Your task to perform on an android device: turn pop-ups on in chrome Image 0: 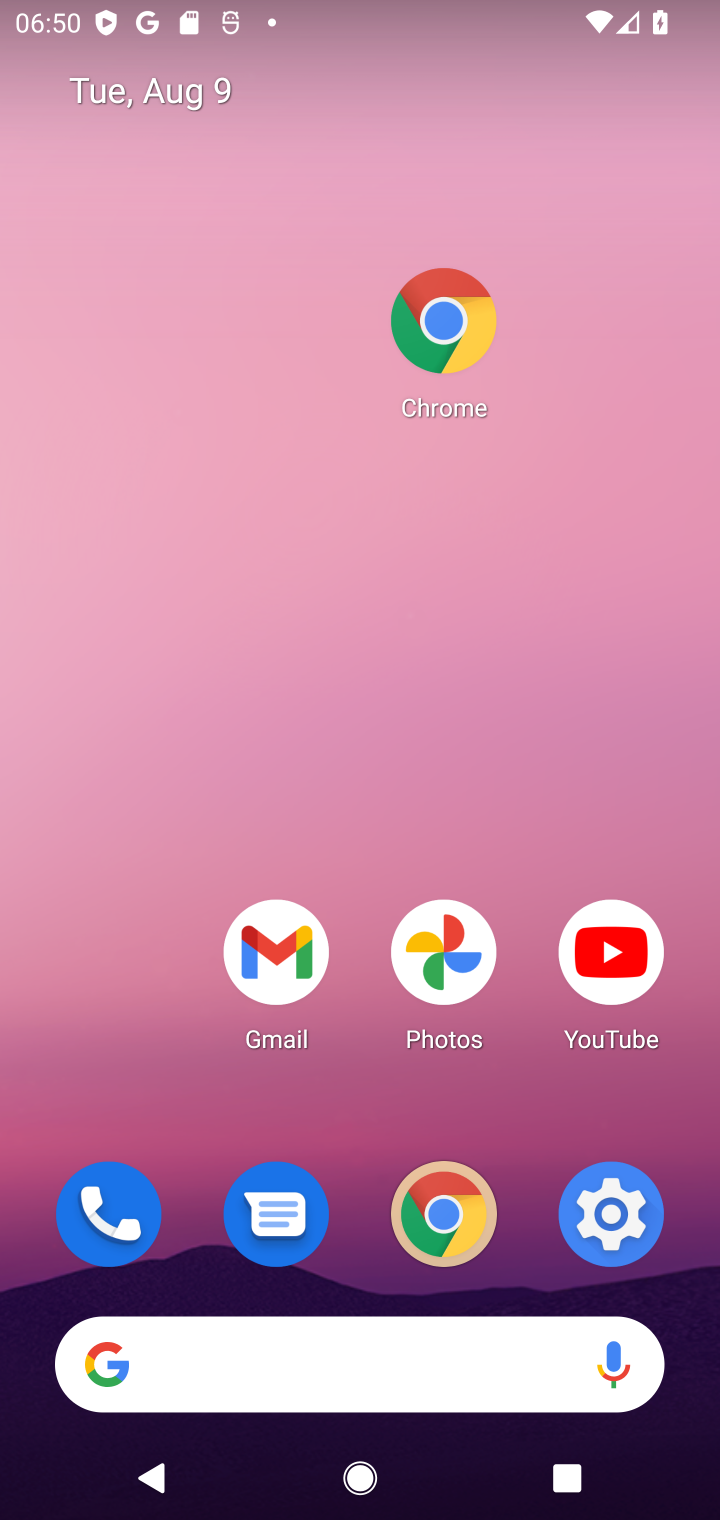
Step 0: press home button
Your task to perform on an android device: turn pop-ups on in chrome Image 1: 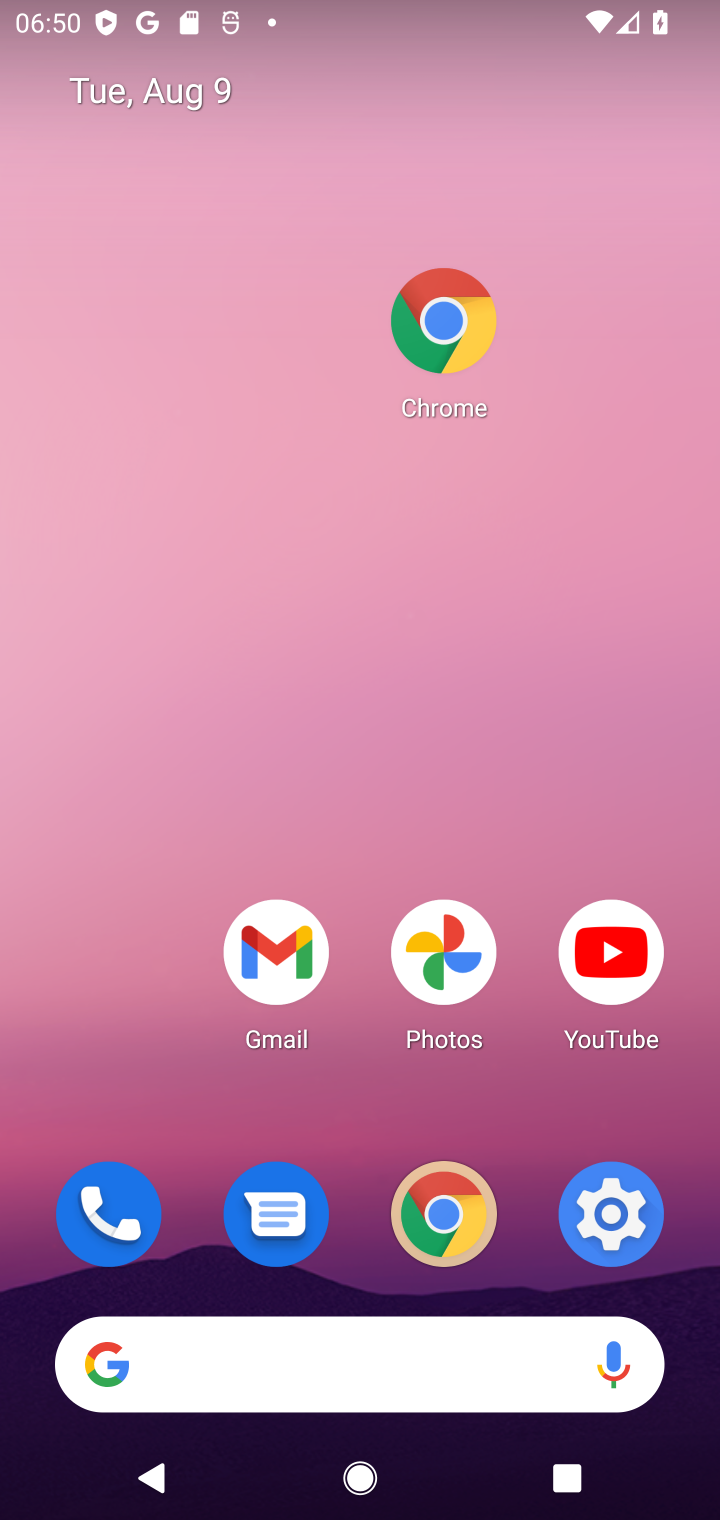
Step 1: click (443, 1233)
Your task to perform on an android device: turn pop-ups on in chrome Image 2: 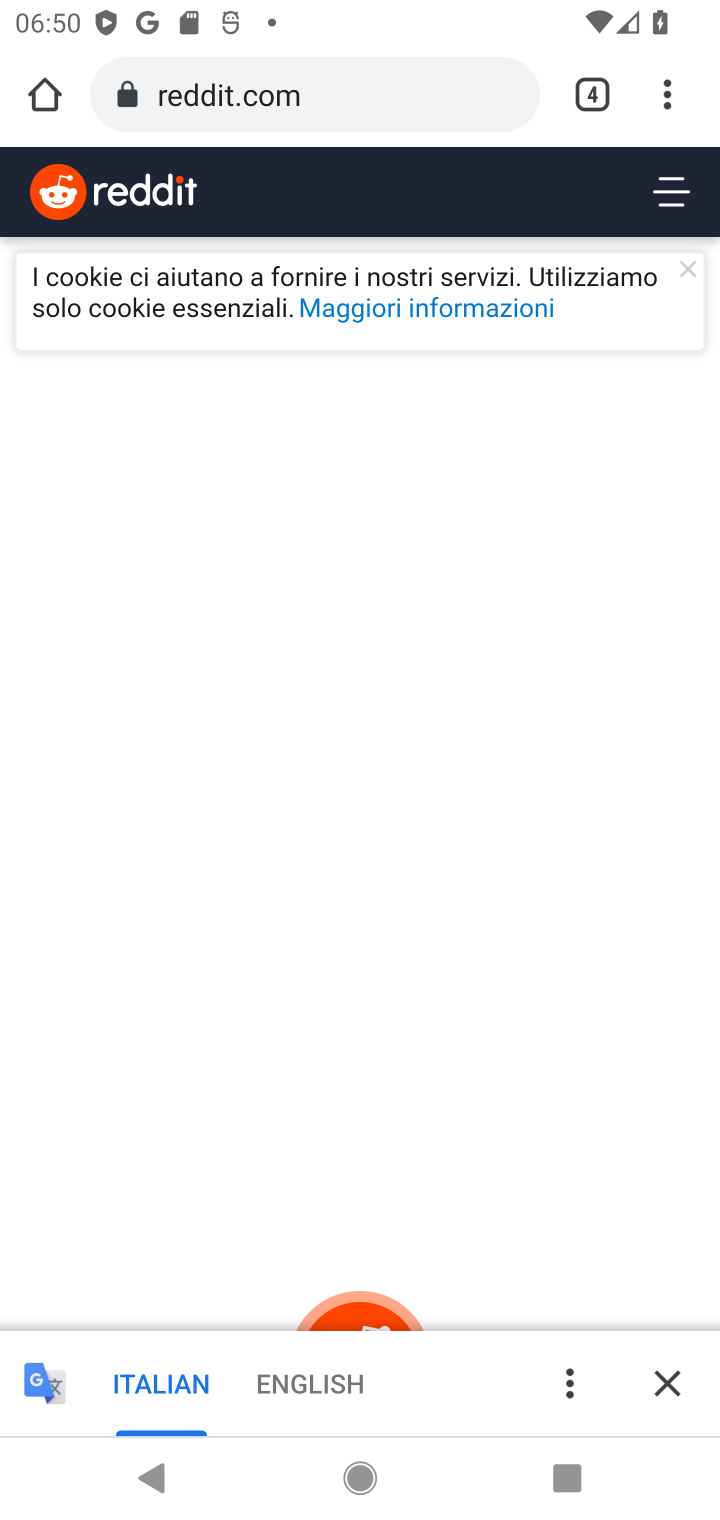
Step 2: click (659, 85)
Your task to perform on an android device: turn pop-ups on in chrome Image 3: 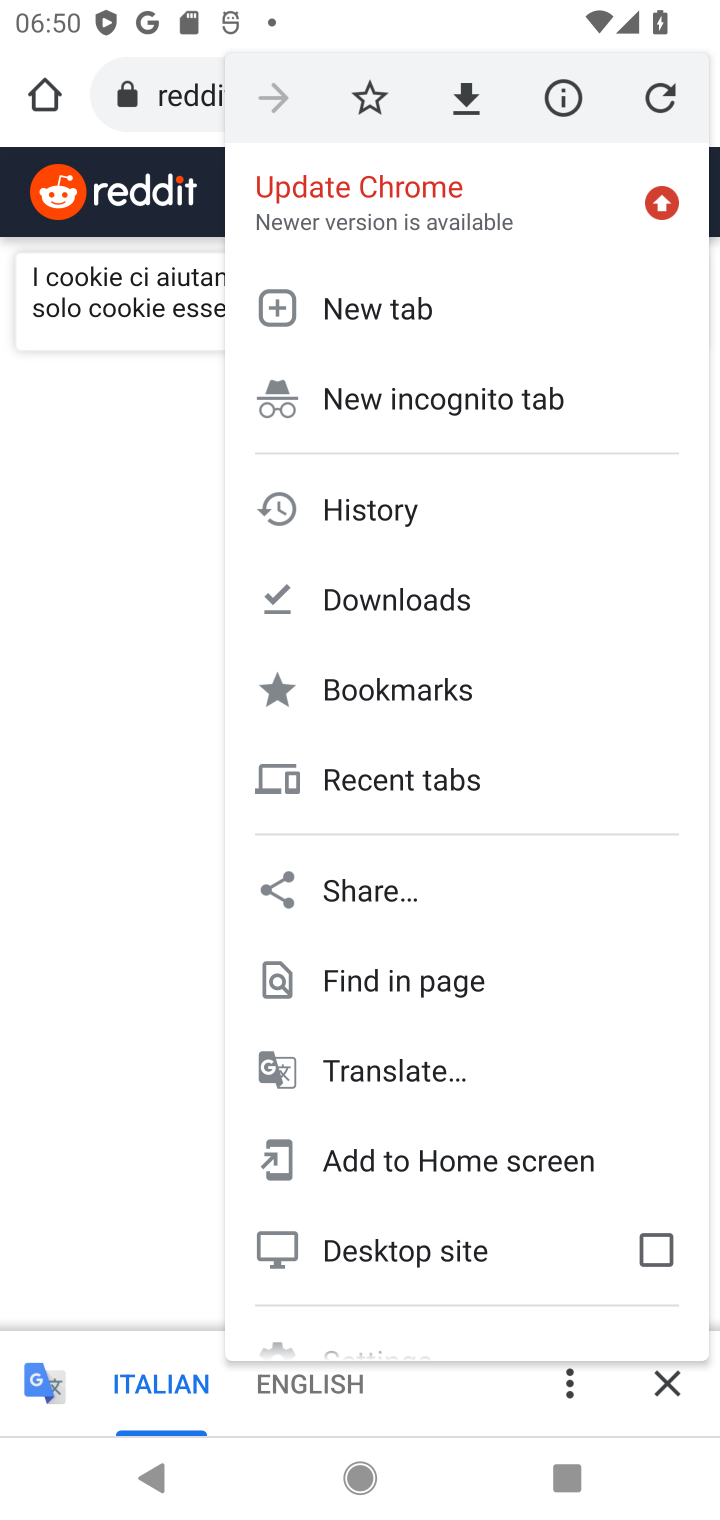
Step 3: drag from (358, 1161) to (492, 867)
Your task to perform on an android device: turn pop-ups on in chrome Image 4: 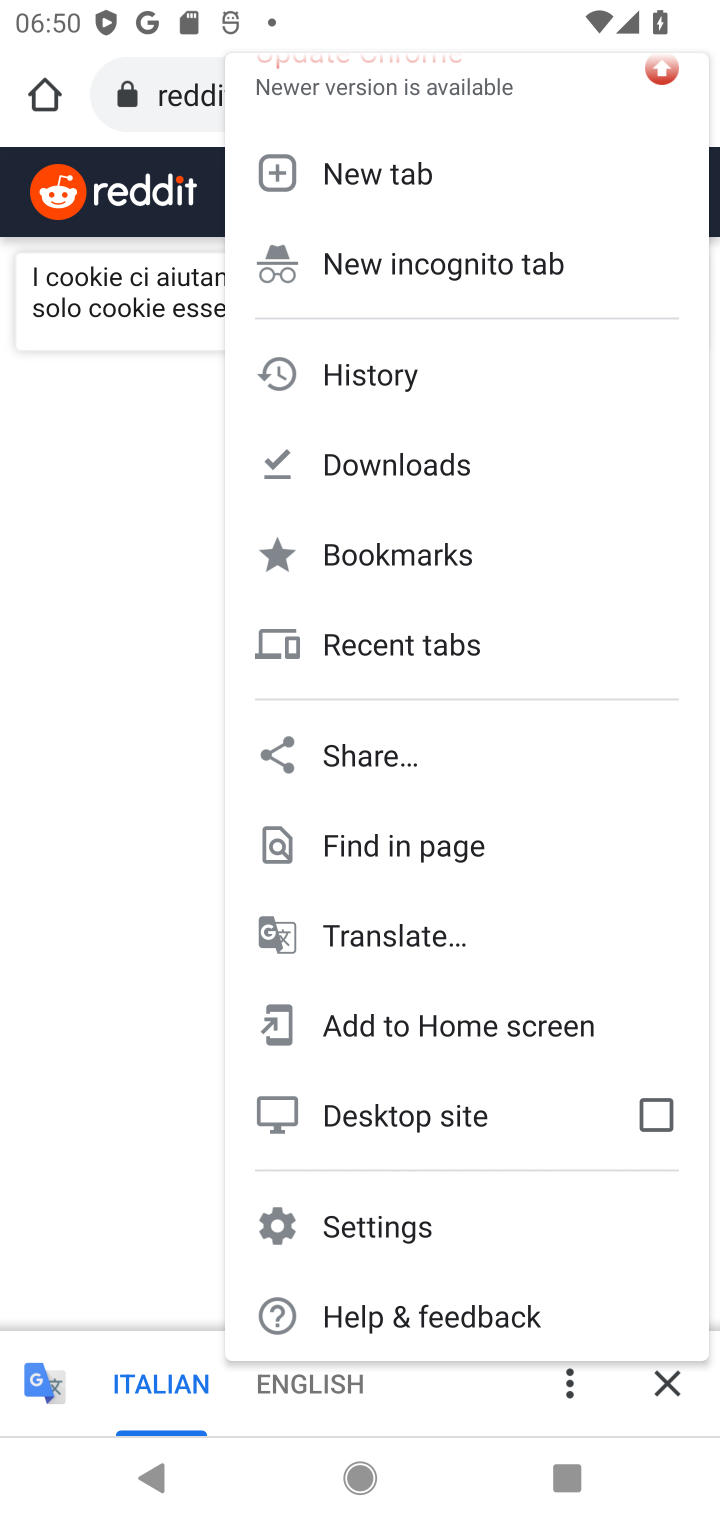
Step 4: click (408, 1243)
Your task to perform on an android device: turn pop-ups on in chrome Image 5: 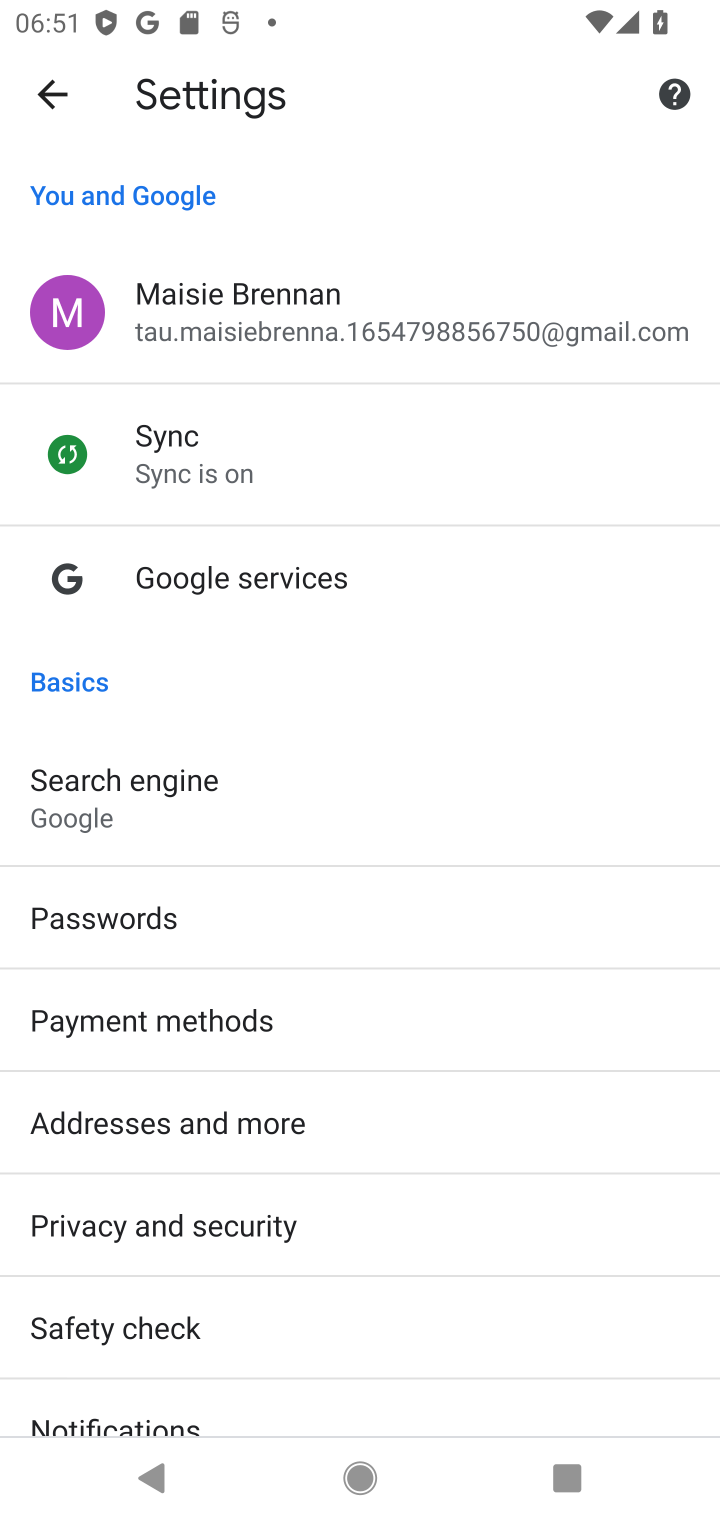
Step 5: drag from (319, 1145) to (399, 722)
Your task to perform on an android device: turn pop-ups on in chrome Image 6: 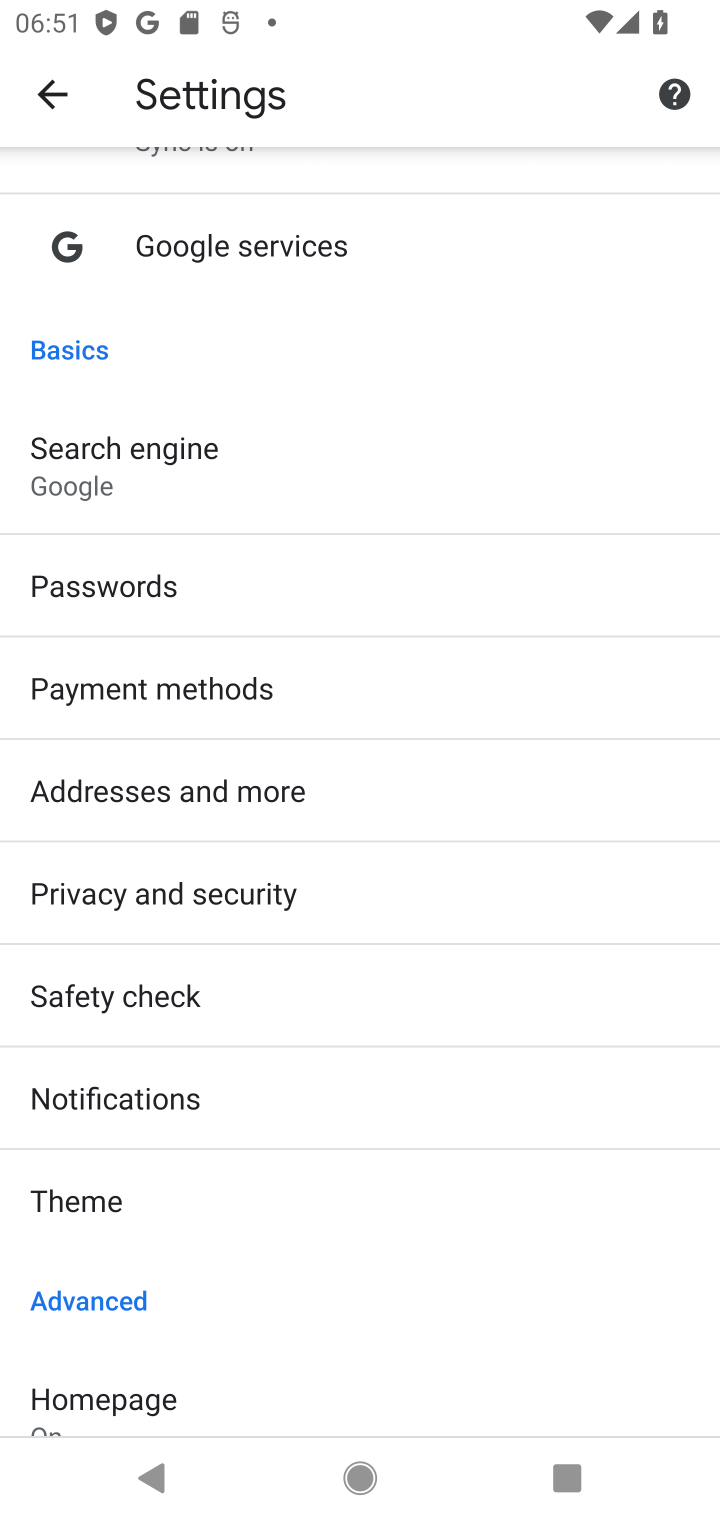
Step 6: drag from (179, 1298) to (288, 928)
Your task to perform on an android device: turn pop-ups on in chrome Image 7: 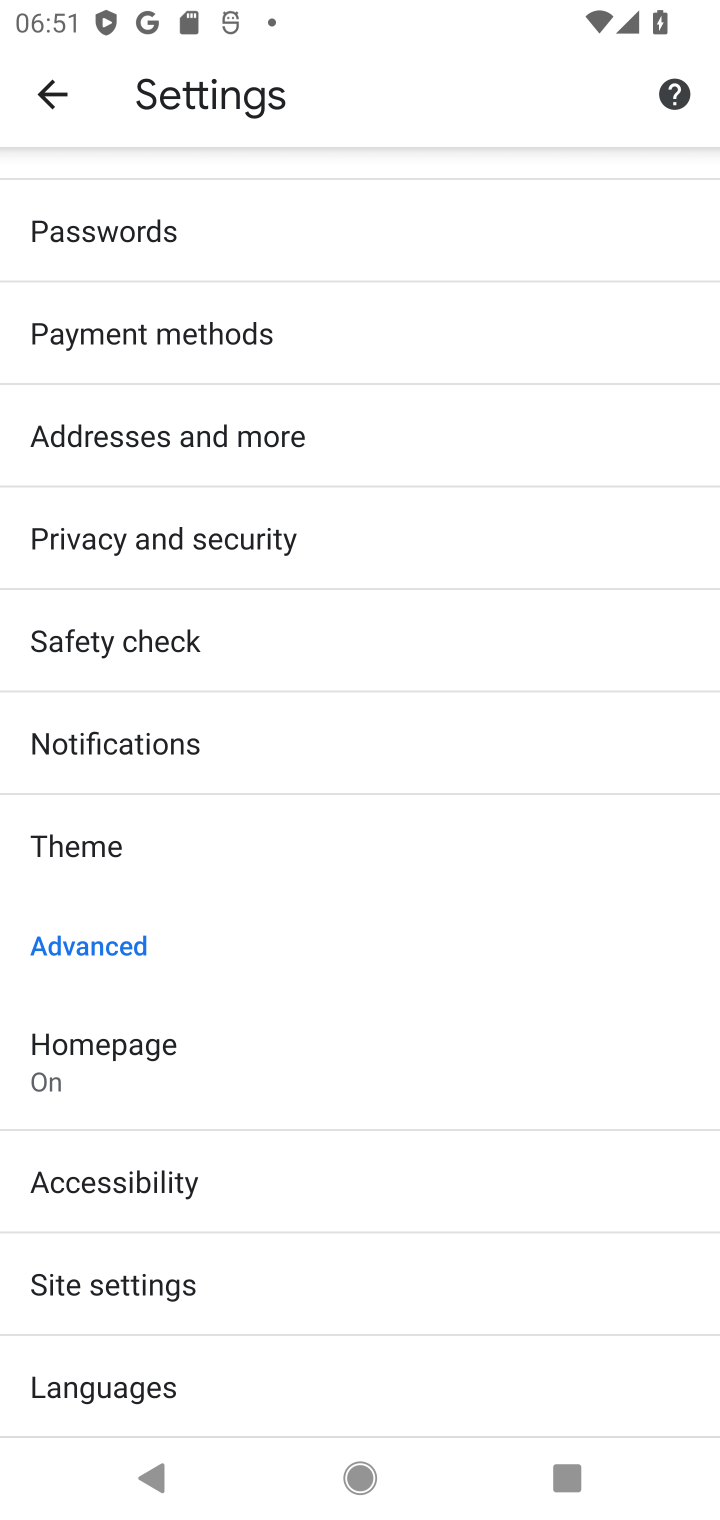
Step 7: click (166, 1289)
Your task to perform on an android device: turn pop-ups on in chrome Image 8: 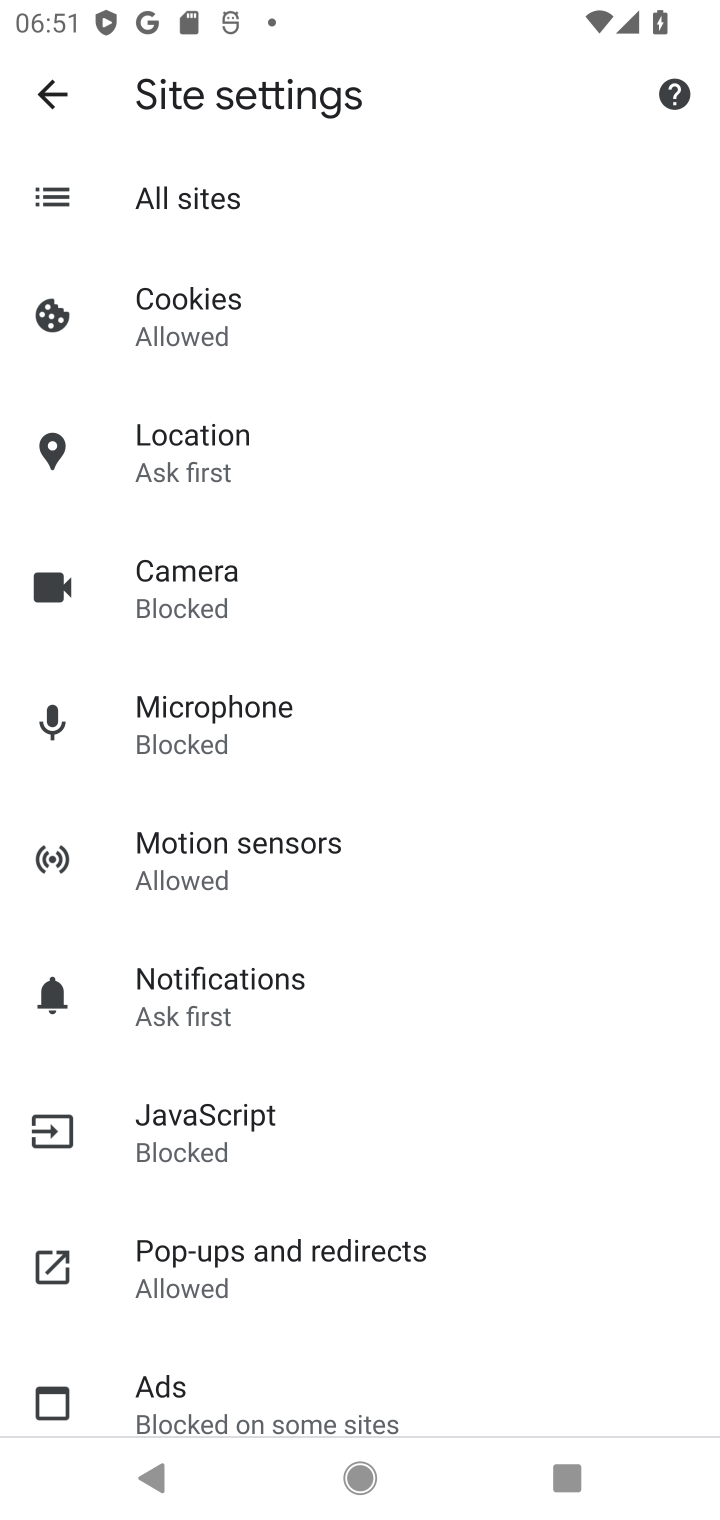
Step 8: click (259, 1258)
Your task to perform on an android device: turn pop-ups on in chrome Image 9: 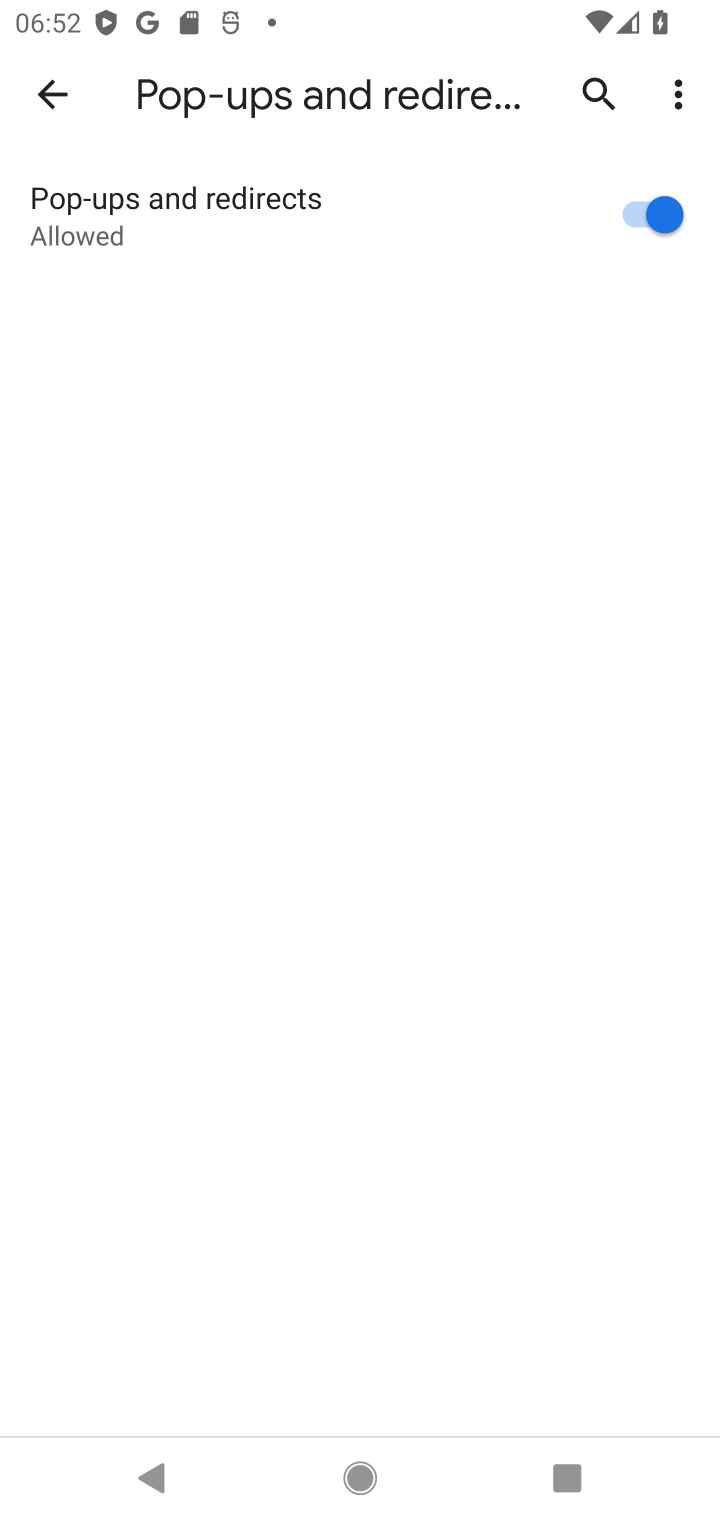
Step 9: task complete